Your task to perform on an android device: Turn off the flashlight Image 0: 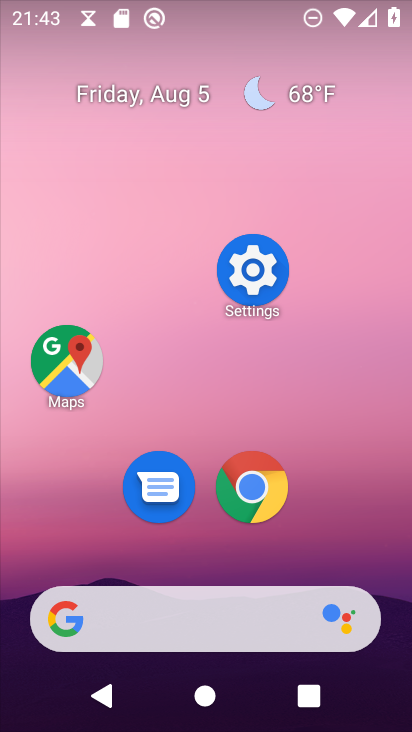
Step 0: drag from (220, 6) to (266, 478)
Your task to perform on an android device: Turn off the flashlight Image 1: 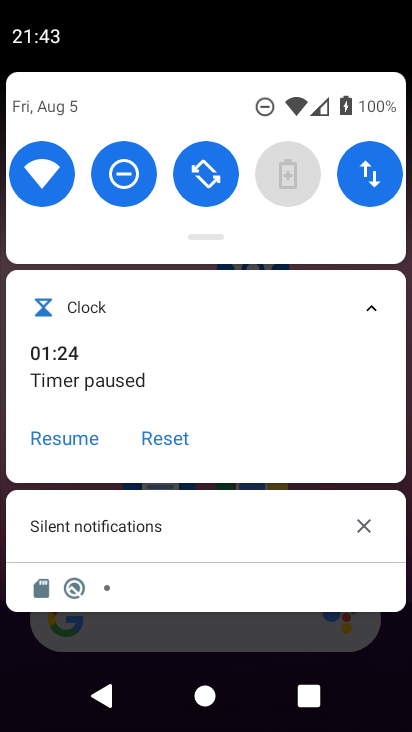
Step 1: task complete